Your task to perform on an android device: set default search engine in the chrome app Image 0: 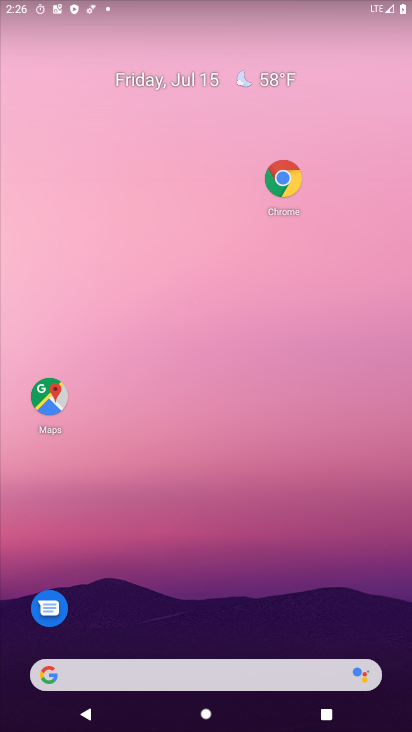
Step 0: drag from (282, 588) to (280, 205)
Your task to perform on an android device: set default search engine in the chrome app Image 1: 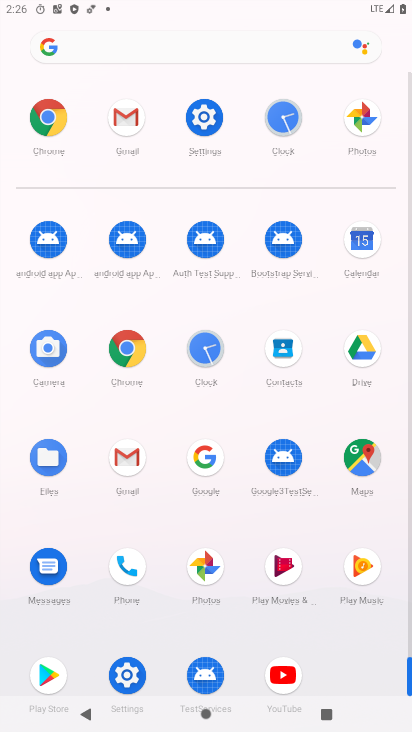
Step 1: click (128, 333)
Your task to perform on an android device: set default search engine in the chrome app Image 2: 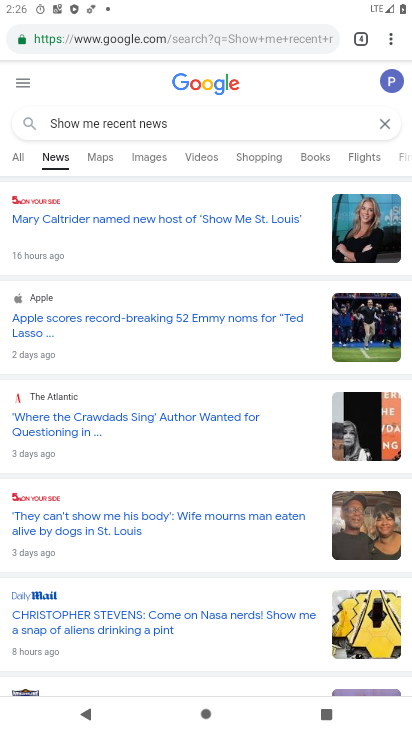
Step 2: drag from (387, 35) to (258, 432)
Your task to perform on an android device: set default search engine in the chrome app Image 3: 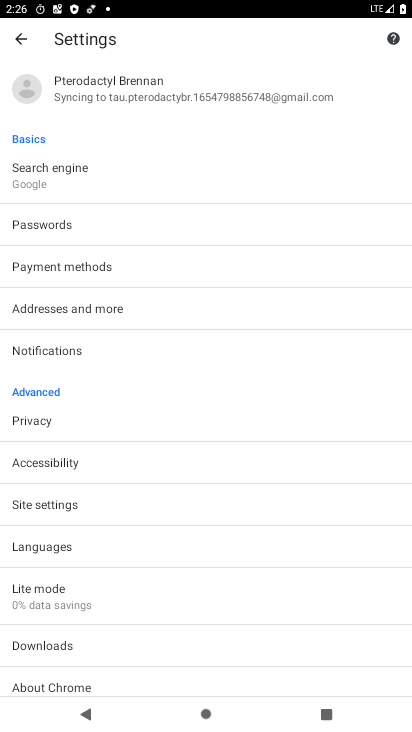
Step 3: click (51, 178)
Your task to perform on an android device: set default search engine in the chrome app Image 4: 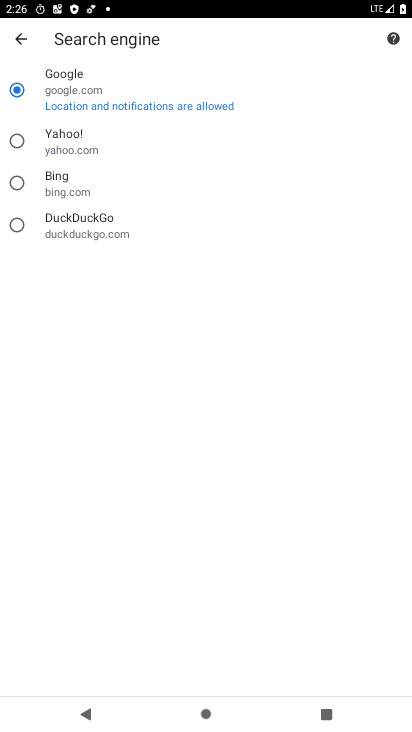
Step 4: task complete